Your task to perform on an android device: Show me popular games on the Play Store Image 0: 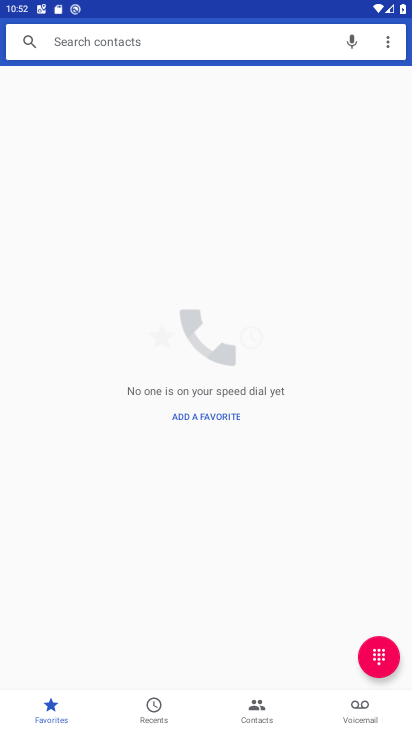
Step 0: press home button
Your task to perform on an android device: Show me popular games on the Play Store Image 1: 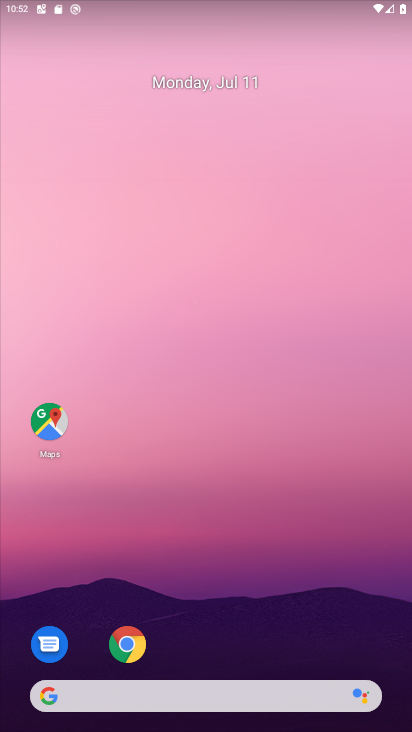
Step 1: drag from (257, 613) to (203, 133)
Your task to perform on an android device: Show me popular games on the Play Store Image 2: 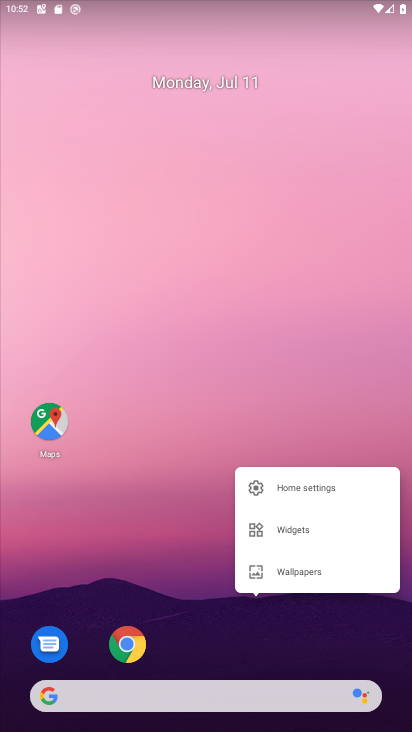
Step 2: click (198, 492)
Your task to perform on an android device: Show me popular games on the Play Store Image 3: 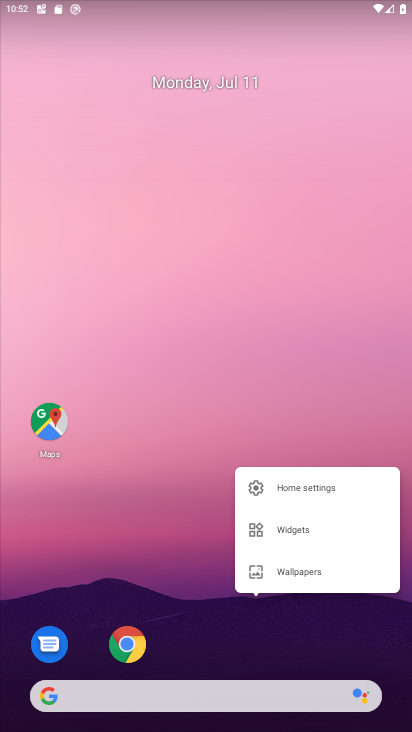
Step 3: click (198, 492)
Your task to perform on an android device: Show me popular games on the Play Store Image 4: 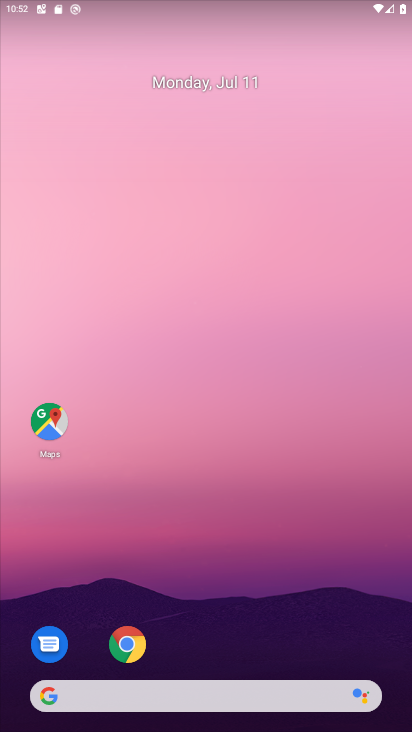
Step 4: drag from (226, 591) to (237, 1)
Your task to perform on an android device: Show me popular games on the Play Store Image 5: 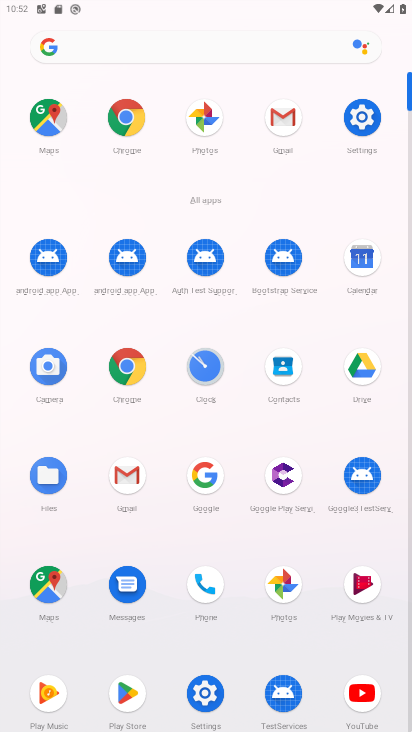
Step 5: click (131, 686)
Your task to perform on an android device: Show me popular games on the Play Store Image 6: 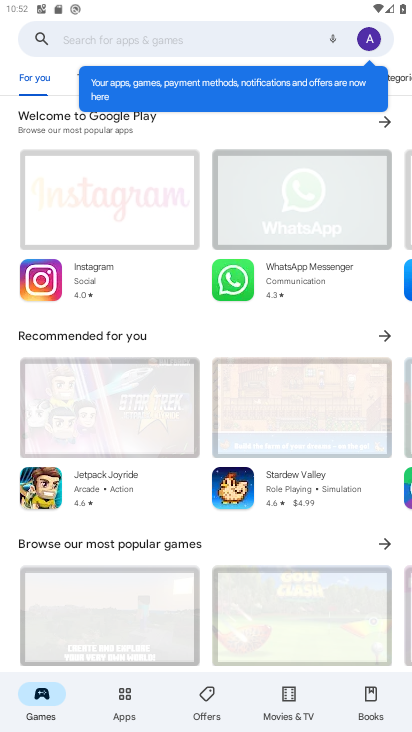
Step 6: click (104, 78)
Your task to perform on an android device: Show me popular games on the Play Store Image 7: 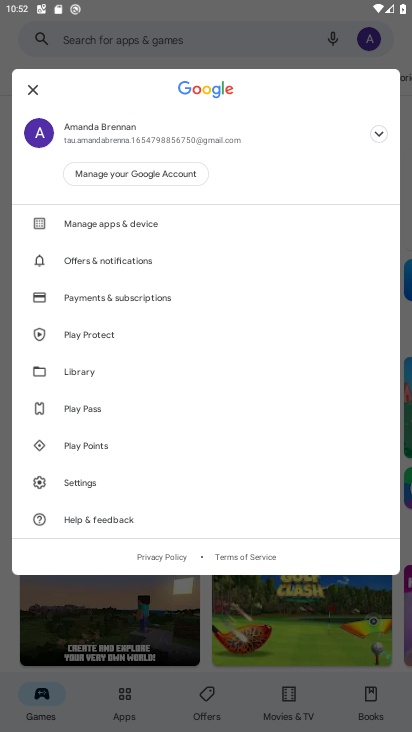
Step 7: click (176, 37)
Your task to perform on an android device: Show me popular games on the Play Store Image 8: 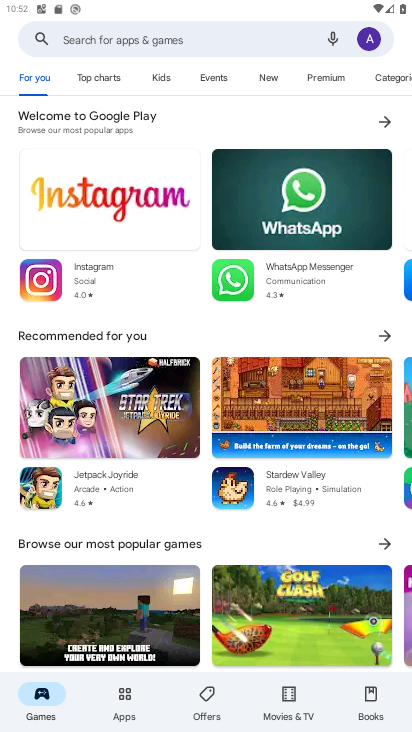
Step 8: click (86, 79)
Your task to perform on an android device: Show me popular games on the Play Store Image 9: 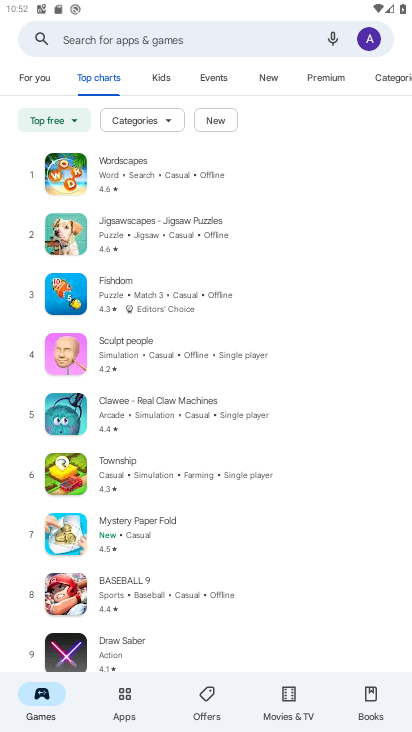
Step 9: task complete